Your task to perform on an android device: Open calendar and show me the second week of next month Image 0: 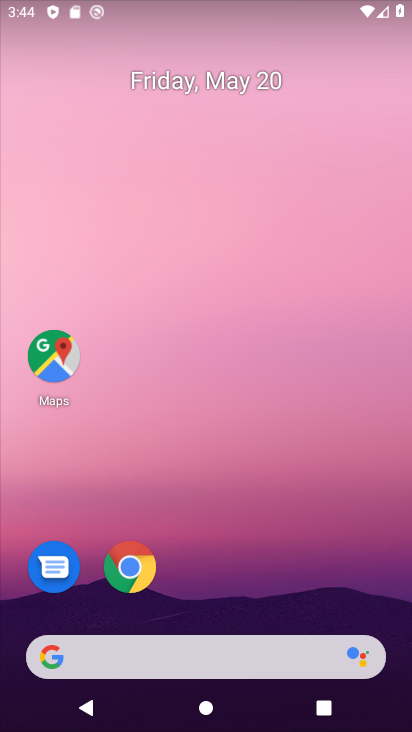
Step 0: click (234, 78)
Your task to perform on an android device: Open calendar and show me the second week of next month Image 1: 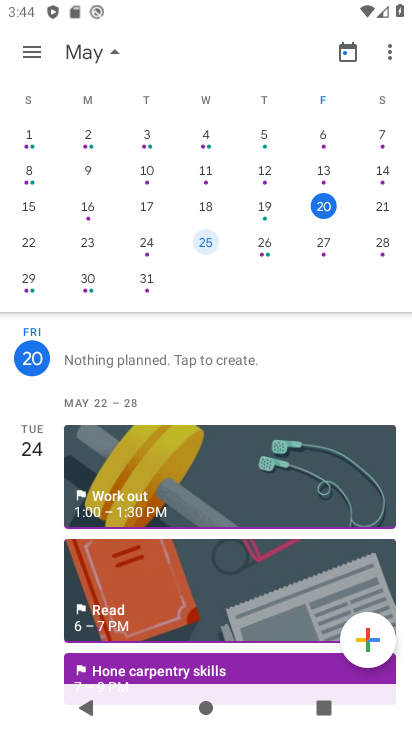
Step 1: drag from (351, 281) to (61, 306)
Your task to perform on an android device: Open calendar and show me the second week of next month Image 2: 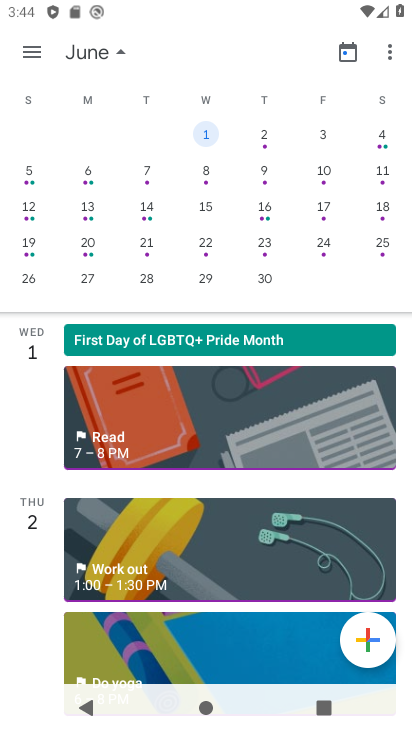
Step 2: click (268, 168)
Your task to perform on an android device: Open calendar and show me the second week of next month Image 3: 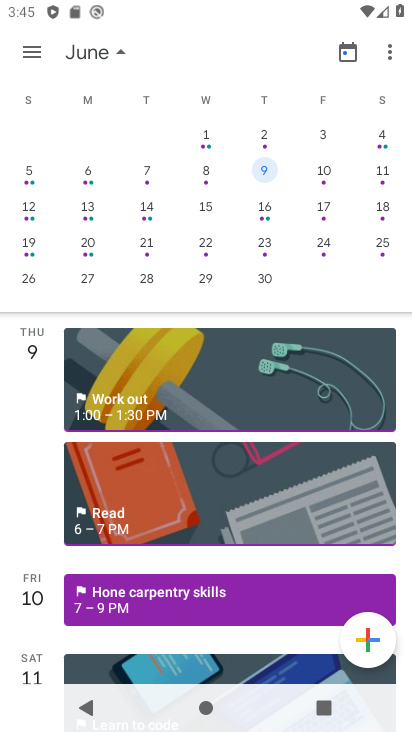
Step 3: task complete